Your task to perform on an android device: turn off wifi Image 0: 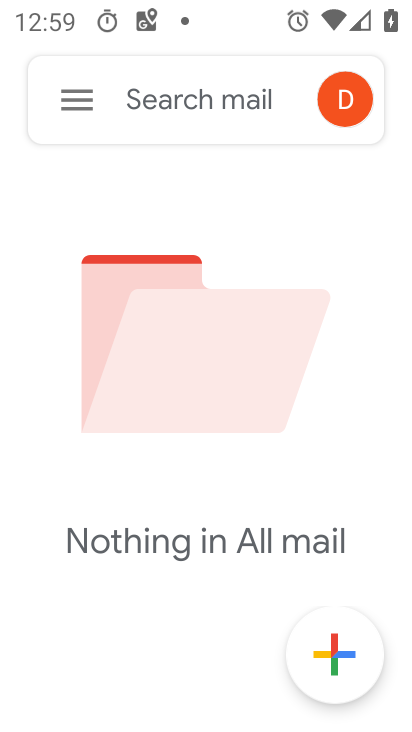
Step 0: press home button
Your task to perform on an android device: turn off wifi Image 1: 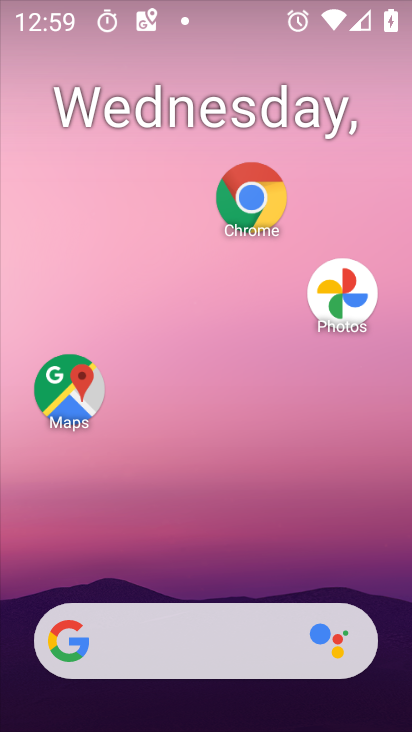
Step 1: drag from (156, 683) to (244, 1)
Your task to perform on an android device: turn off wifi Image 2: 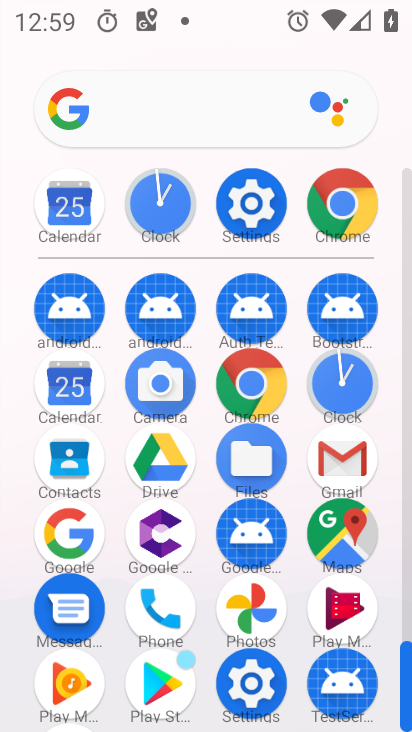
Step 2: click (265, 191)
Your task to perform on an android device: turn off wifi Image 3: 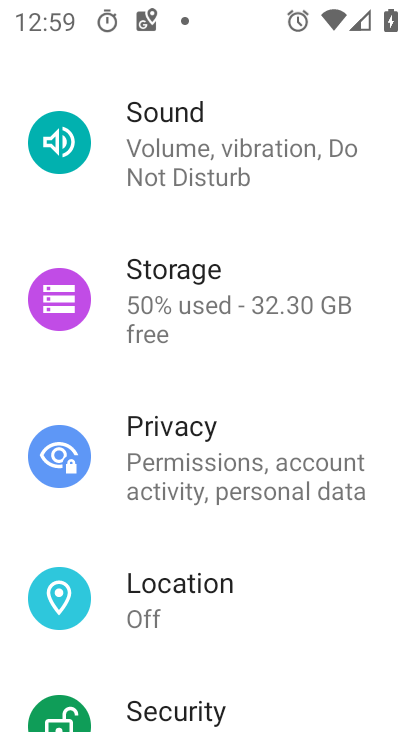
Step 3: drag from (228, 196) to (345, 613)
Your task to perform on an android device: turn off wifi Image 4: 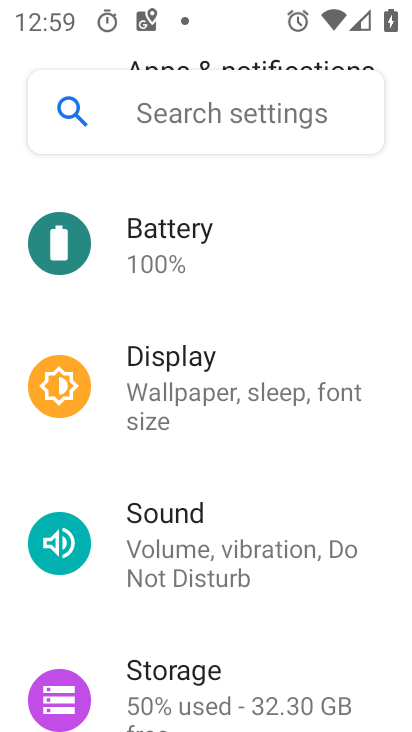
Step 4: drag from (244, 279) to (213, 719)
Your task to perform on an android device: turn off wifi Image 5: 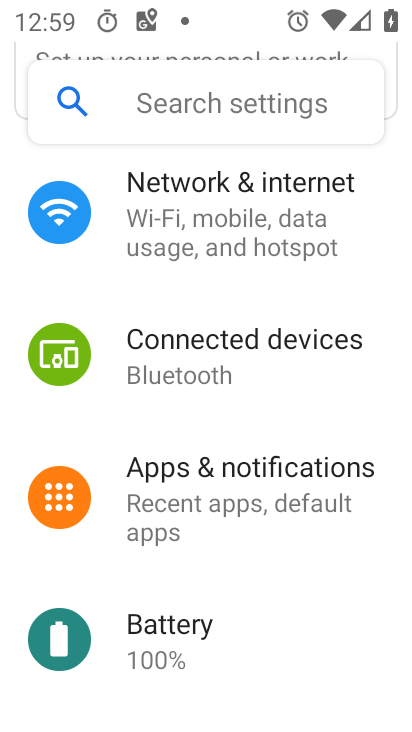
Step 5: drag from (207, 290) to (147, 597)
Your task to perform on an android device: turn off wifi Image 6: 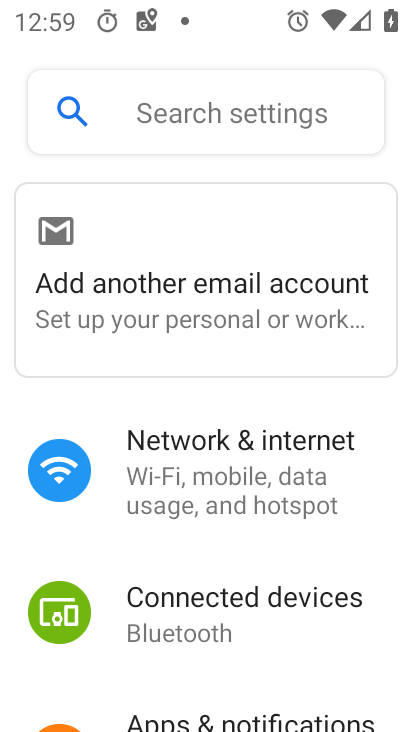
Step 6: click (182, 465)
Your task to perform on an android device: turn off wifi Image 7: 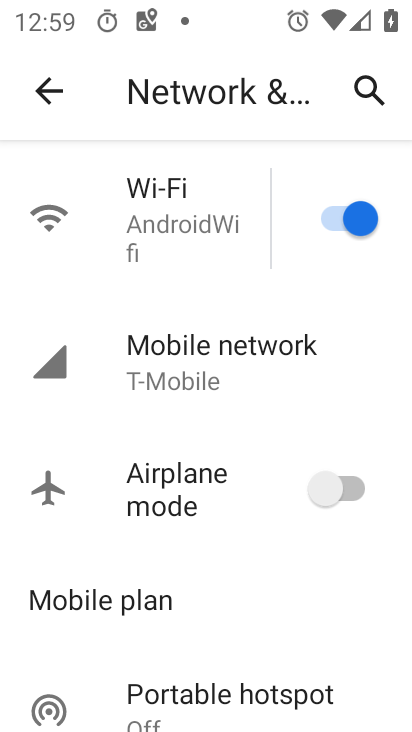
Step 7: click (325, 215)
Your task to perform on an android device: turn off wifi Image 8: 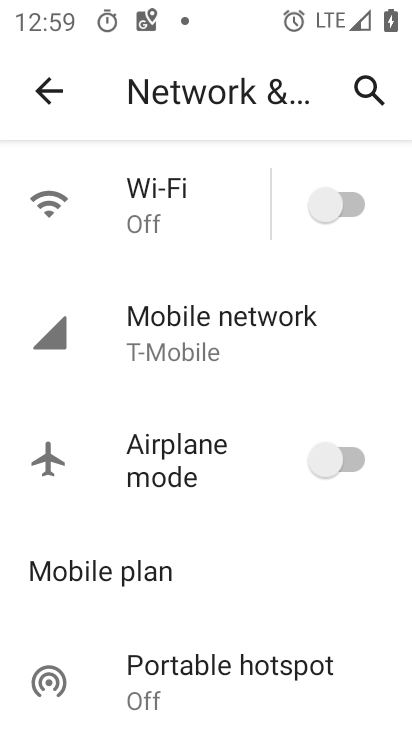
Step 8: task complete